Your task to perform on an android device: Open Google Chrome Image 0: 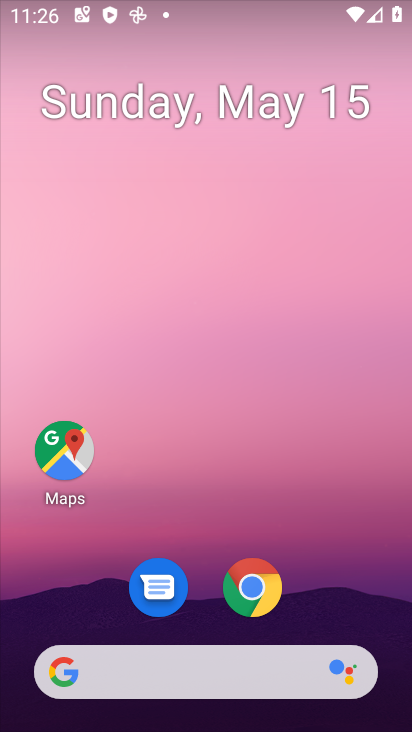
Step 0: drag from (400, 667) to (321, 92)
Your task to perform on an android device: Open Google Chrome Image 1: 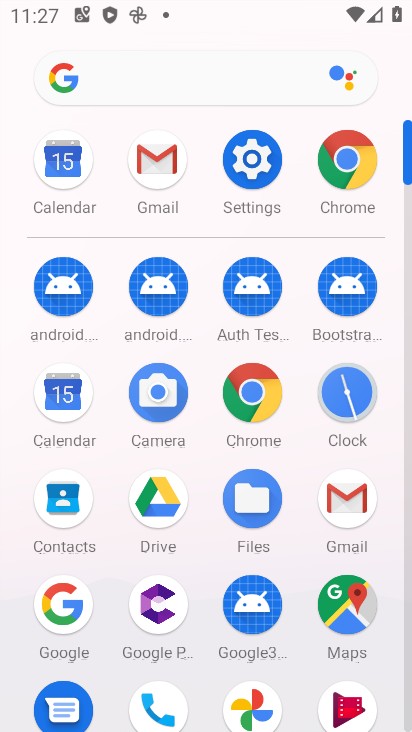
Step 1: click (255, 403)
Your task to perform on an android device: Open Google Chrome Image 2: 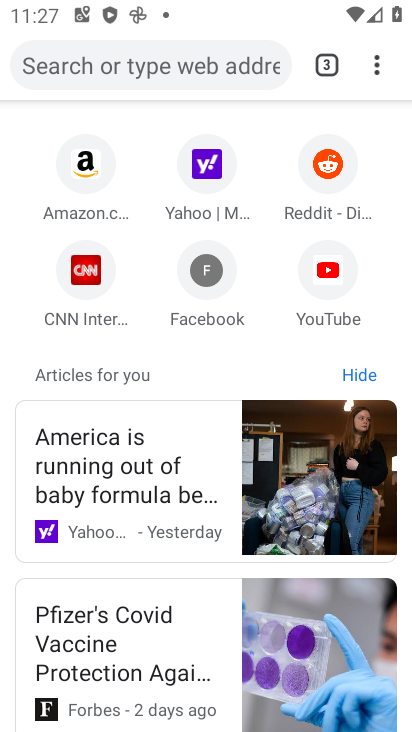
Step 2: task complete